Your task to perform on an android device: stop showing notifications on the lock screen Image 0: 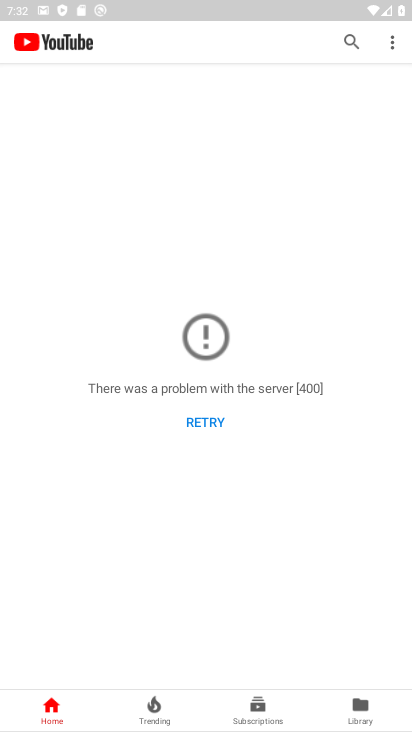
Step 0: press home button
Your task to perform on an android device: stop showing notifications on the lock screen Image 1: 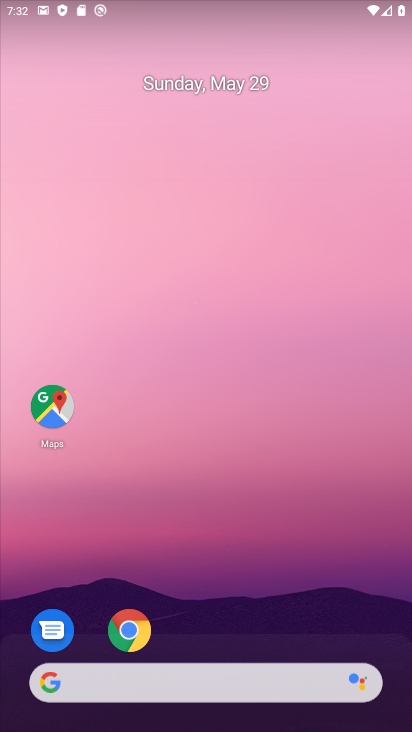
Step 1: drag from (272, 619) to (198, 31)
Your task to perform on an android device: stop showing notifications on the lock screen Image 2: 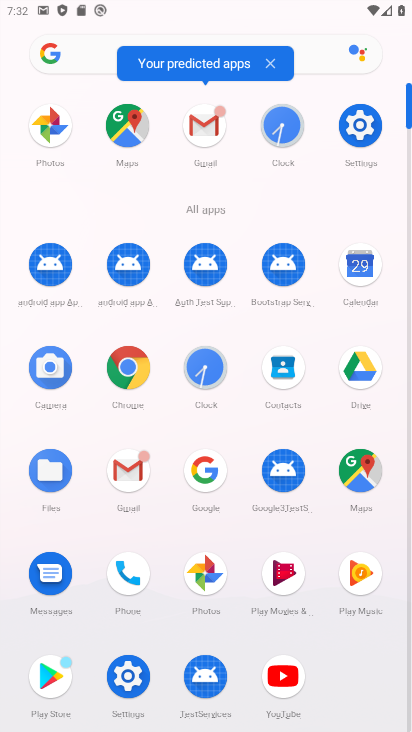
Step 2: click (371, 135)
Your task to perform on an android device: stop showing notifications on the lock screen Image 3: 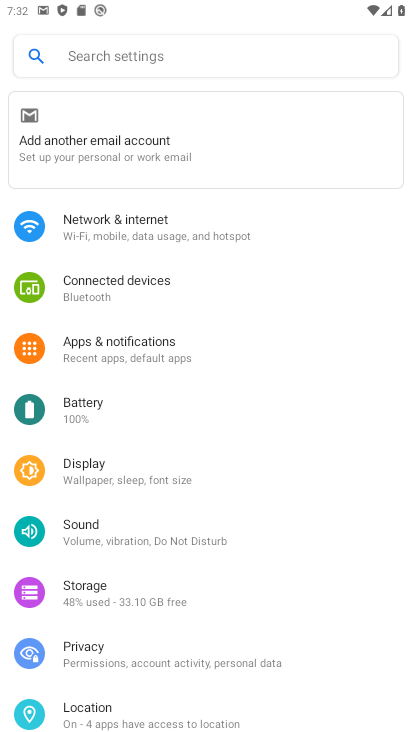
Step 3: drag from (219, 656) to (203, 530)
Your task to perform on an android device: stop showing notifications on the lock screen Image 4: 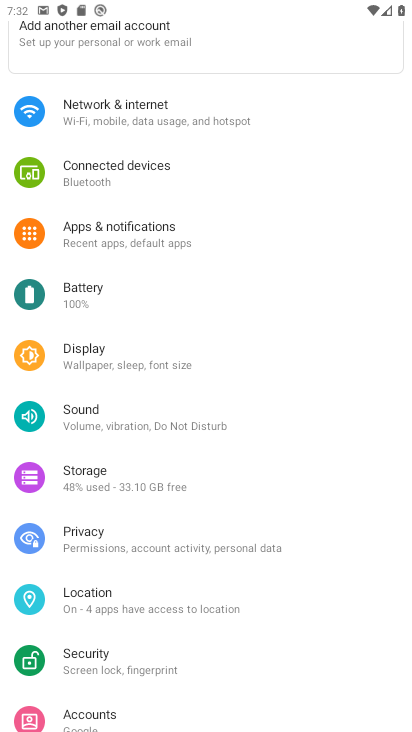
Step 4: click (230, 225)
Your task to perform on an android device: stop showing notifications on the lock screen Image 5: 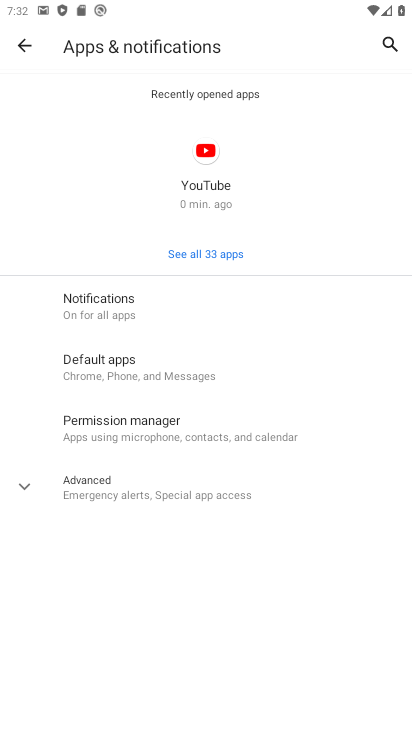
Step 5: click (85, 311)
Your task to perform on an android device: stop showing notifications on the lock screen Image 6: 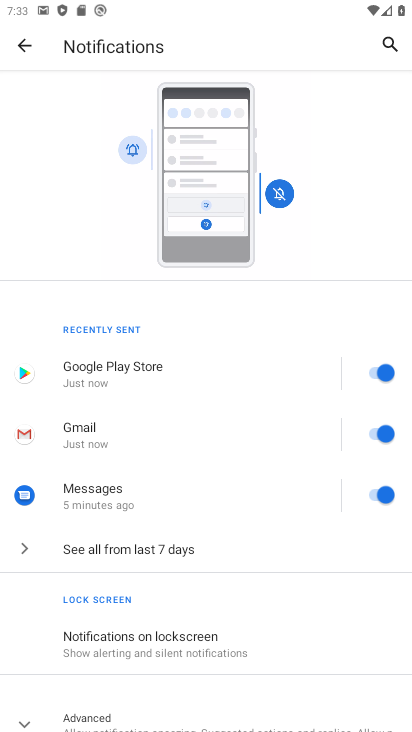
Step 6: click (139, 642)
Your task to perform on an android device: stop showing notifications on the lock screen Image 7: 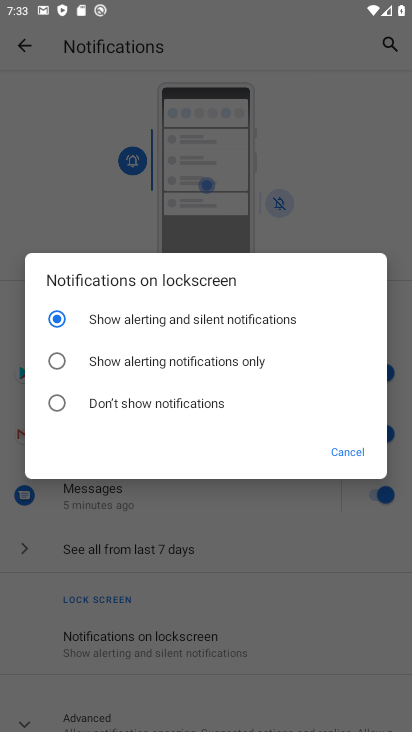
Step 7: click (84, 397)
Your task to perform on an android device: stop showing notifications on the lock screen Image 8: 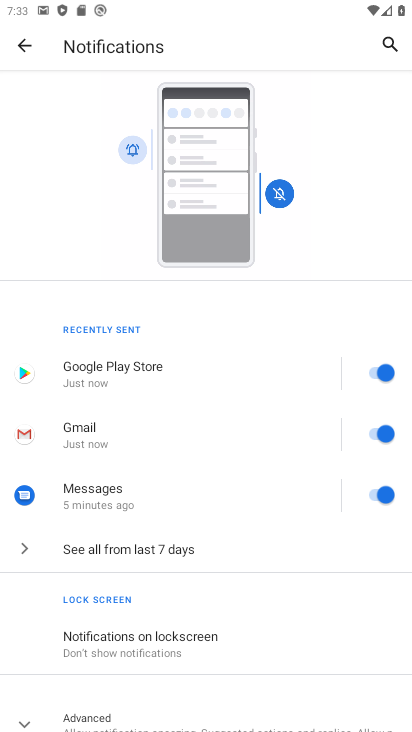
Step 8: task complete